Your task to perform on an android device: turn on location history Image 0: 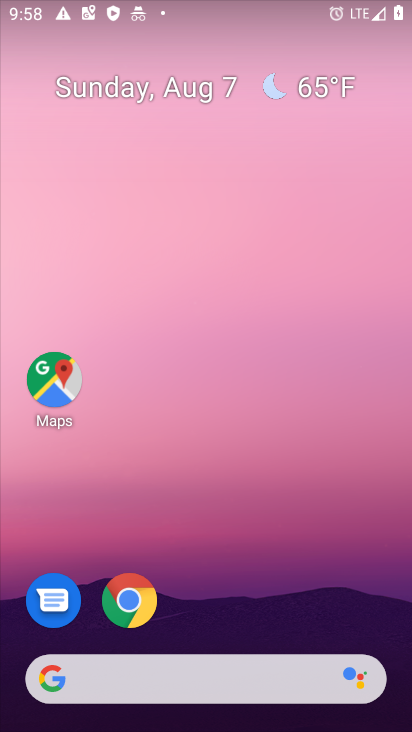
Step 0: drag from (238, 150) to (259, 4)
Your task to perform on an android device: turn on location history Image 1: 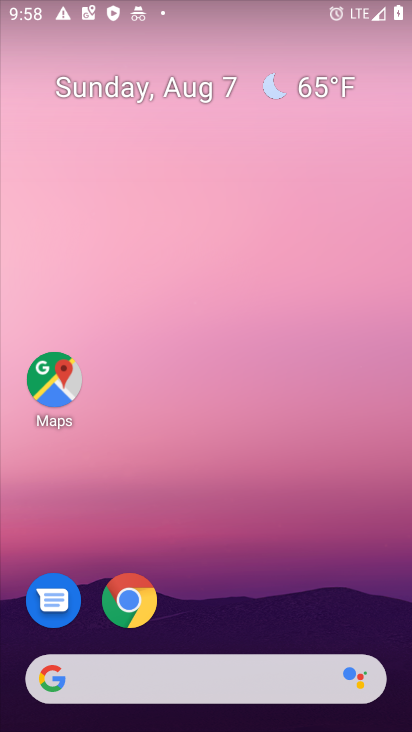
Step 1: drag from (207, 463) to (278, 53)
Your task to perform on an android device: turn on location history Image 2: 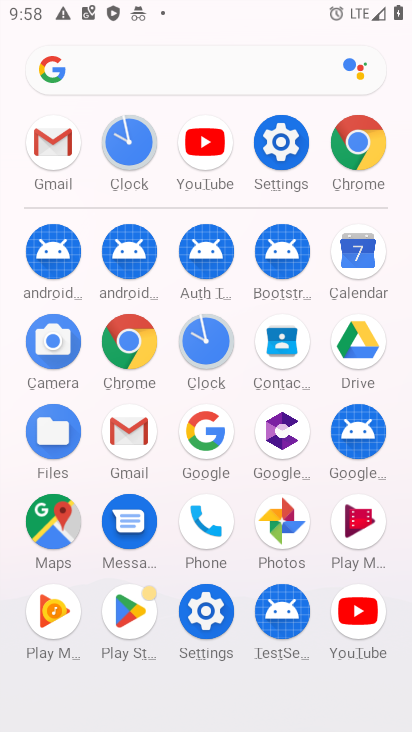
Step 2: click (284, 142)
Your task to perform on an android device: turn on location history Image 3: 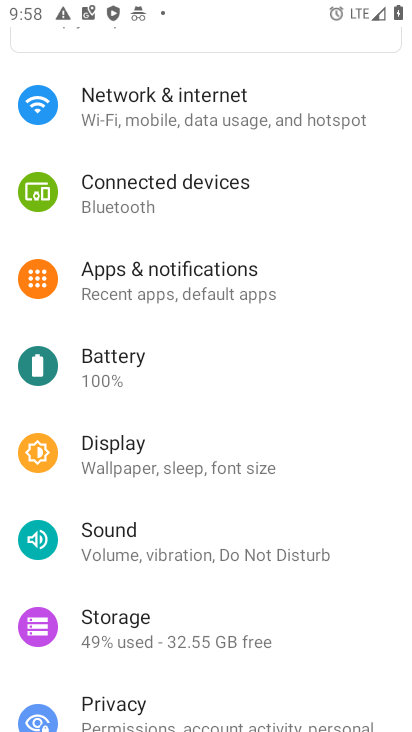
Step 3: drag from (161, 583) to (187, 295)
Your task to perform on an android device: turn on location history Image 4: 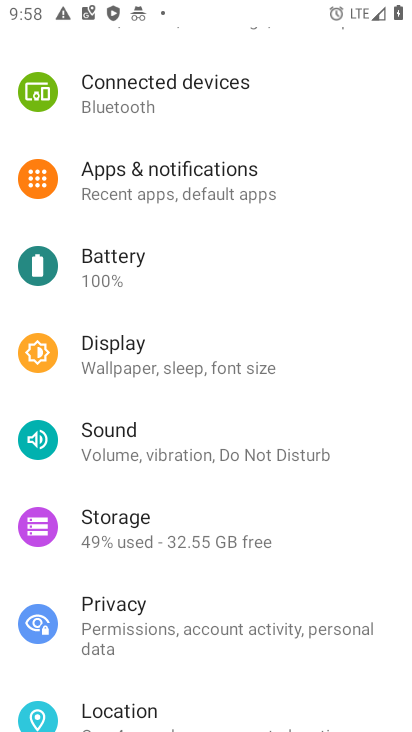
Step 4: click (133, 713)
Your task to perform on an android device: turn on location history Image 5: 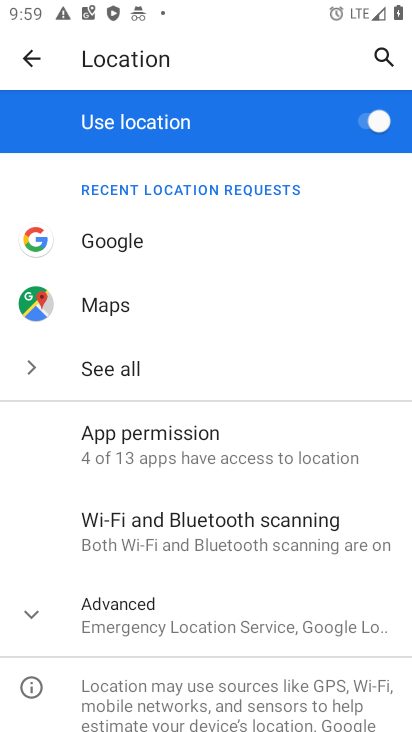
Step 5: click (167, 619)
Your task to perform on an android device: turn on location history Image 6: 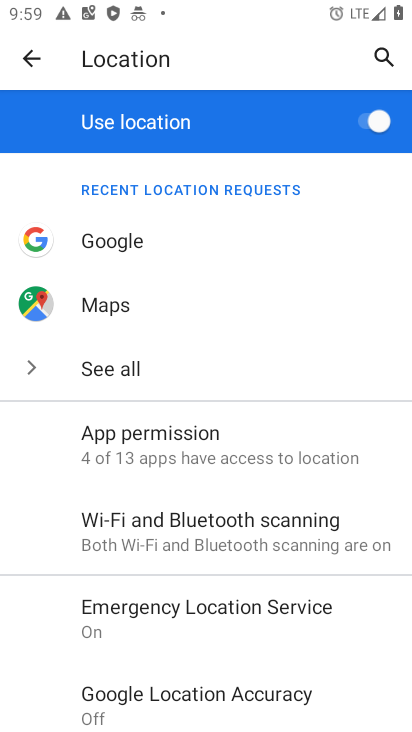
Step 6: drag from (184, 622) to (253, 294)
Your task to perform on an android device: turn on location history Image 7: 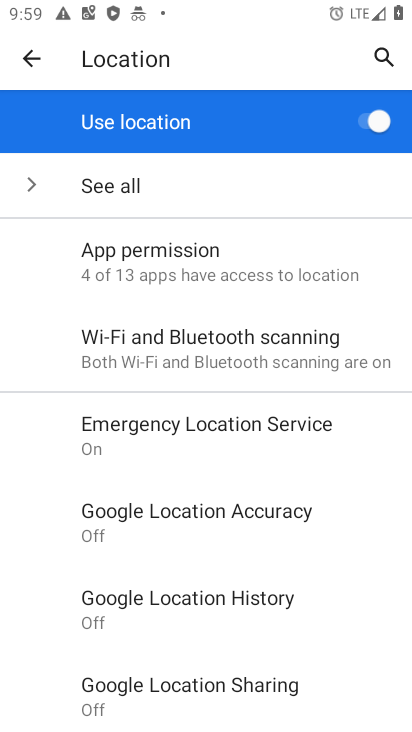
Step 7: click (200, 600)
Your task to perform on an android device: turn on location history Image 8: 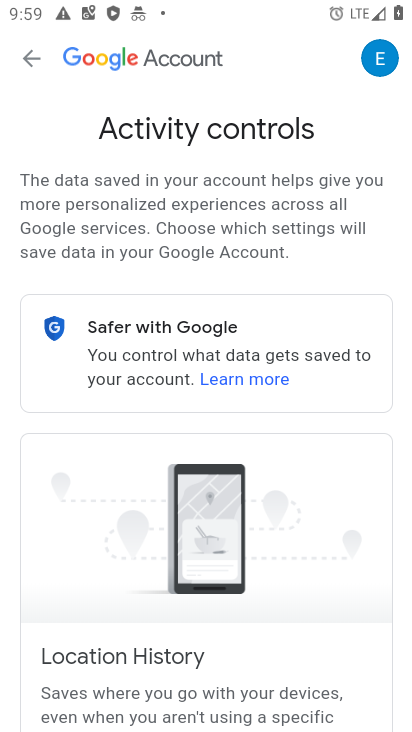
Step 8: drag from (275, 628) to (305, 331)
Your task to perform on an android device: turn on location history Image 9: 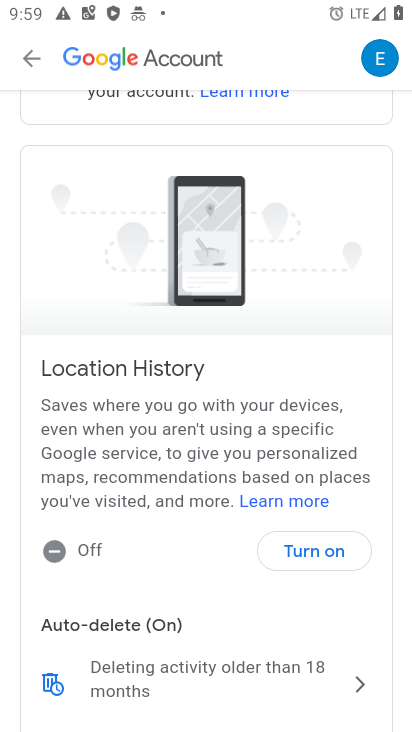
Step 9: click (312, 553)
Your task to perform on an android device: turn on location history Image 10: 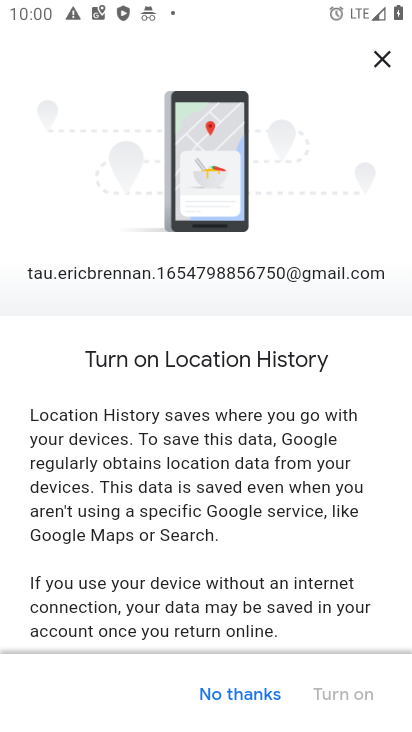
Step 10: drag from (312, 459) to (320, 251)
Your task to perform on an android device: turn on location history Image 11: 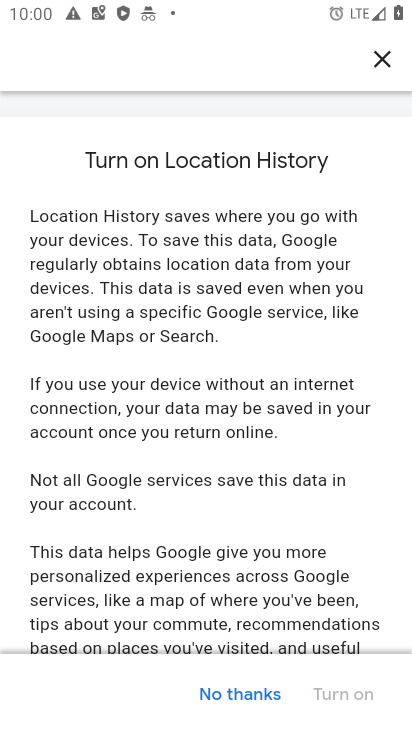
Step 11: drag from (157, 525) to (124, 200)
Your task to perform on an android device: turn on location history Image 12: 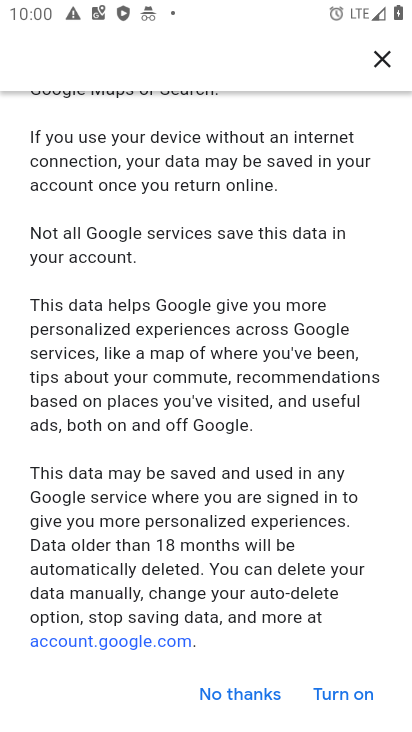
Step 12: click (345, 702)
Your task to perform on an android device: turn on location history Image 13: 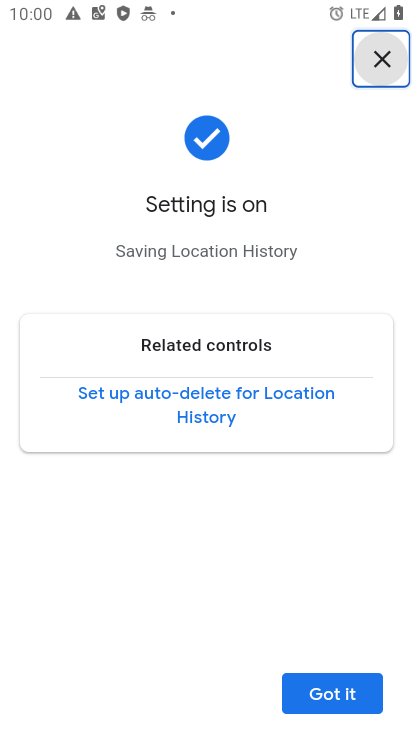
Step 13: click (345, 702)
Your task to perform on an android device: turn on location history Image 14: 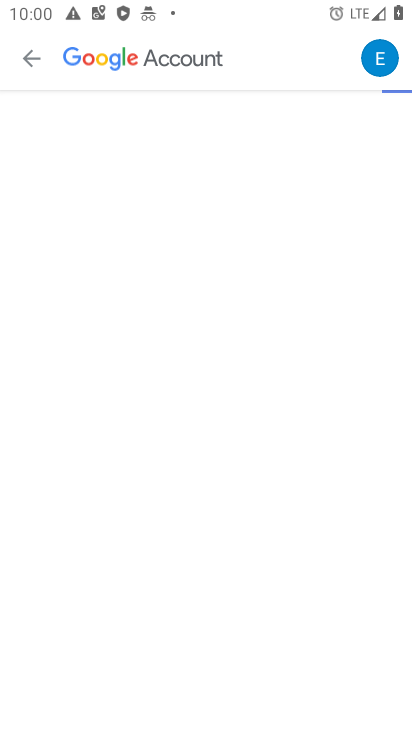
Step 14: task complete